Your task to perform on an android device: Search for Italian restaurants on Maps Image 0: 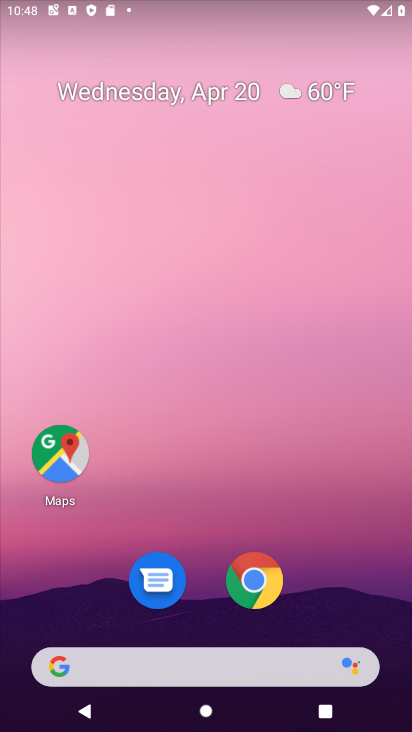
Step 0: click (46, 471)
Your task to perform on an android device: Search for Italian restaurants on Maps Image 1: 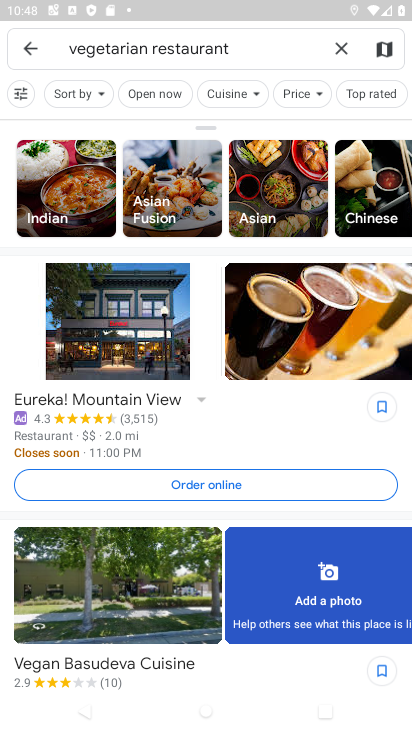
Step 1: click (330, 55)
Your task to perform on an android device: Search for Italian restaurants on Maps Image 2: 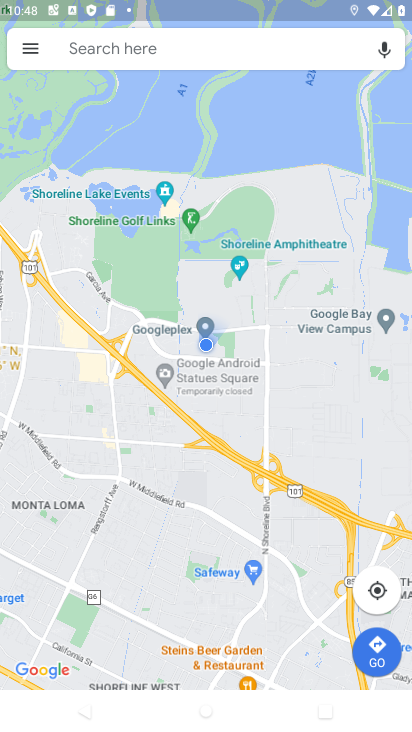
Step 2: click (132, 55)
Your task to perform on an android device: Search for Italian restaurants on Maps Image 3: 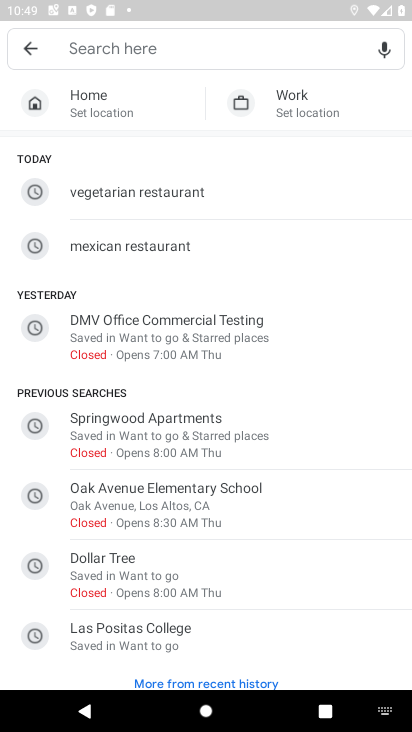
Step 3: type "italian restaurtants"
Your task to perform on an android device: Search for Italian restaurants on Maps Image 4: 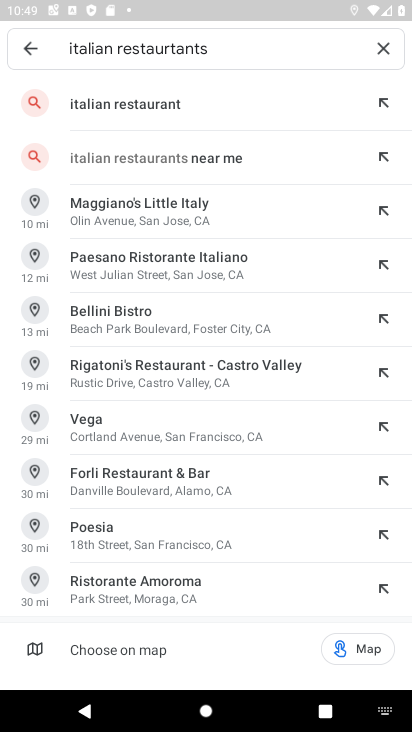
Step 4: click (167, 115)
Your task to perform on an android device: Search for Italian restaurants on Maps Image 5: 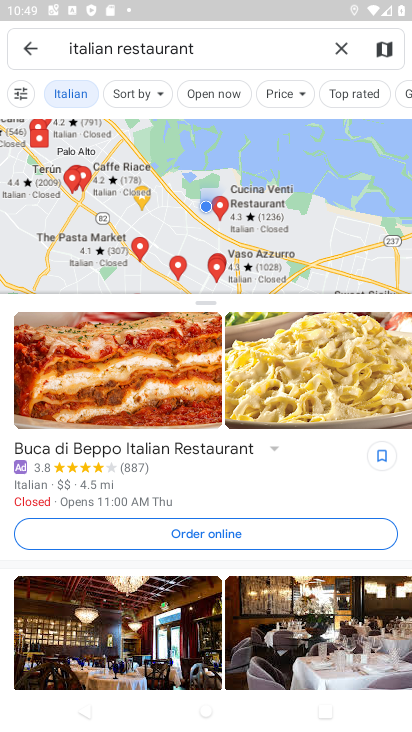
Step 5: task complete